Your task to perform on an android device: turn on wifi Image 0: 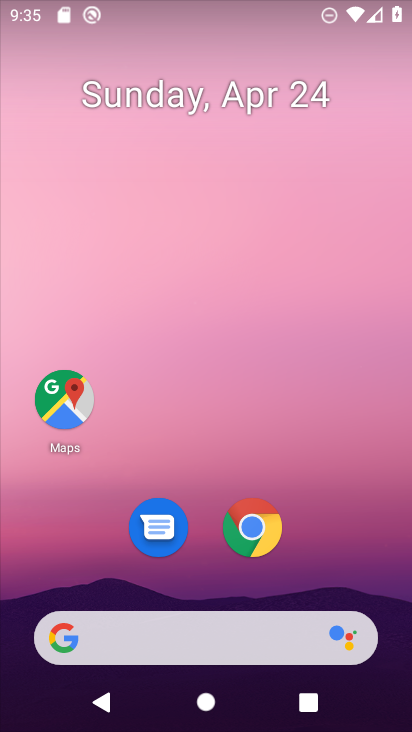
Step 0: drag from (211, 1) to (274, 453)
Your task to perform on an android device: turn on wifi Image 1: 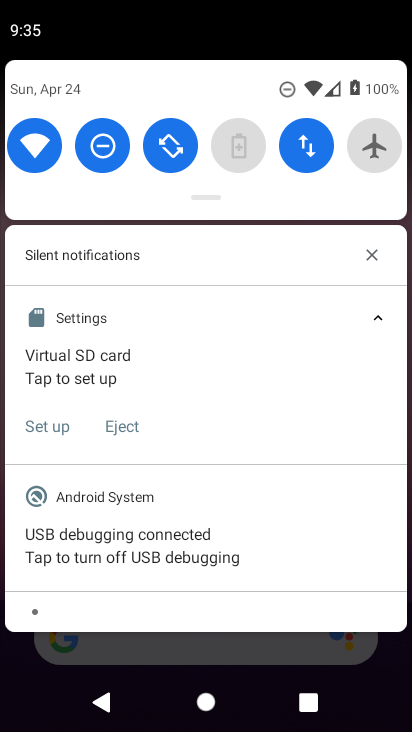
Step 1: task complete